Your task to perform on an android device: Go to location settings Image 0: 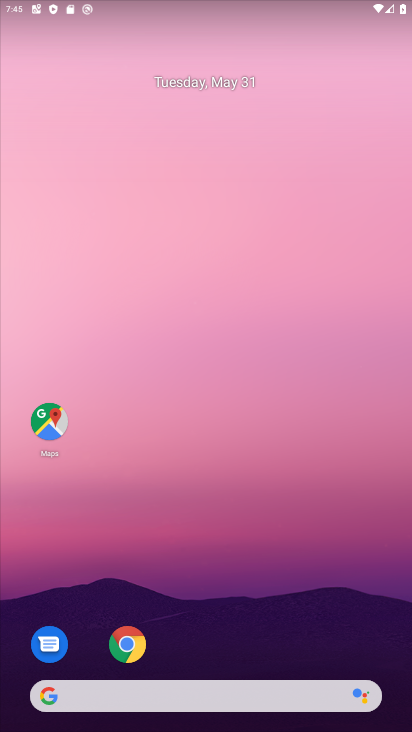
Step 0: drag from (232, 727) to (331, 3)
Your task to perform on an android device: Go to location settings Image 1: 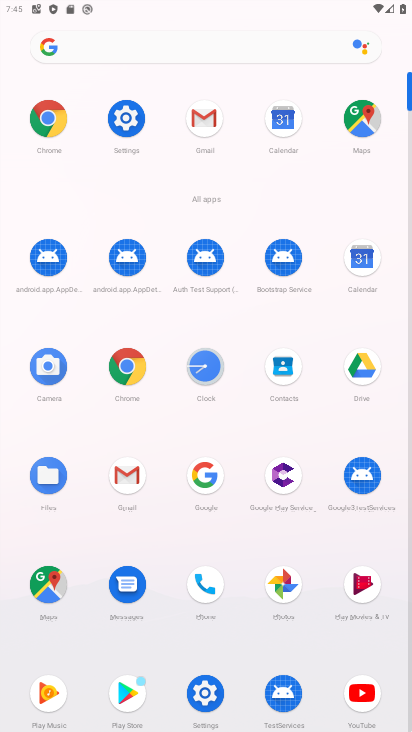
Step 1: click (122, 118)
Your task to perform on an android device: Go to location settings Image 2: 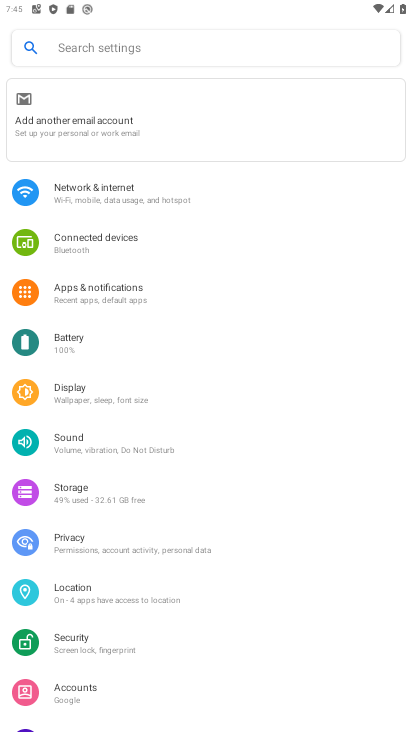
Step 2: click (158, 583)
Your task to perform on an android device: Go to location settings Image 3: 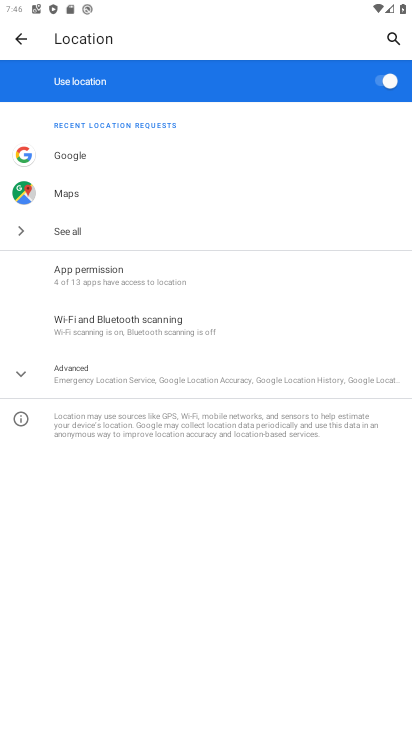
Step 3: task complete